Your task to perform on an android device: Open Yahoo.com Image 0: 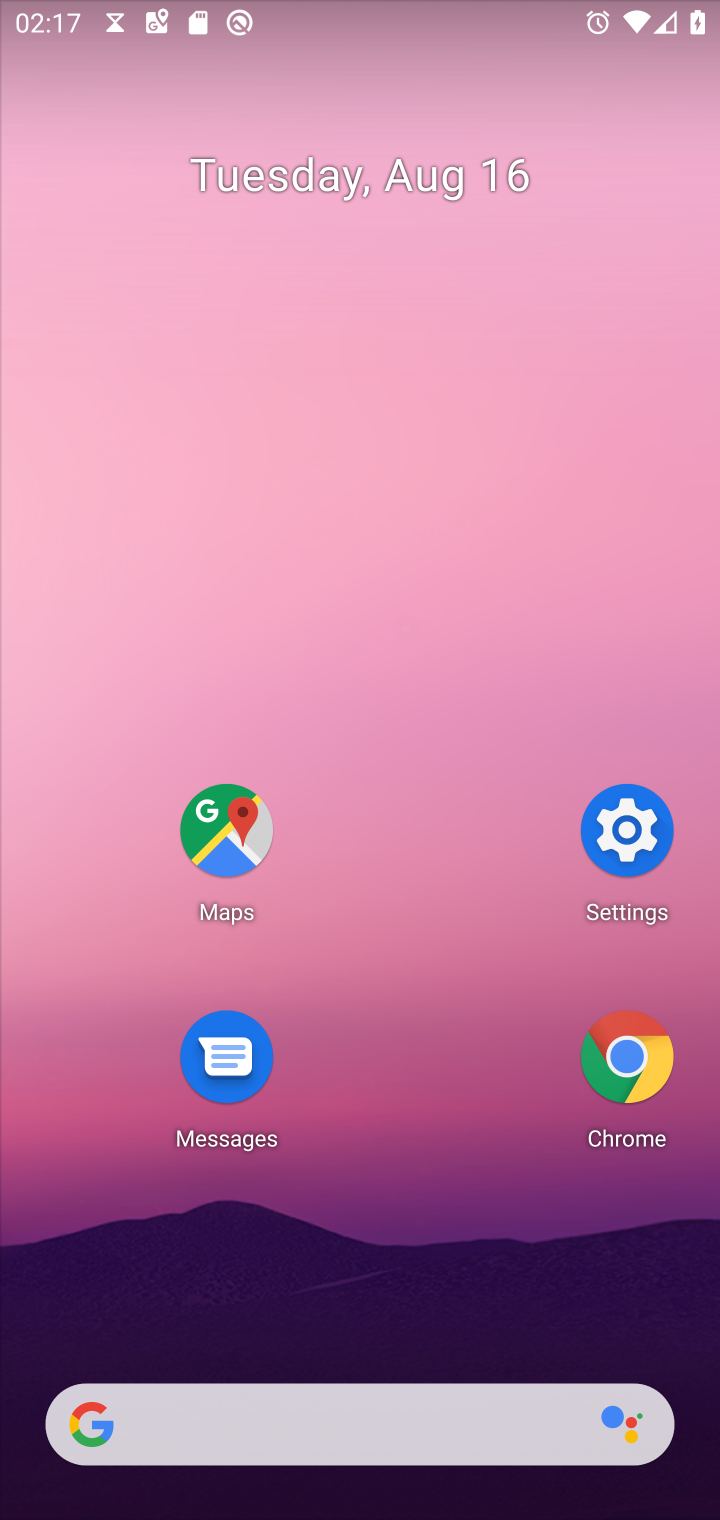
Step 0: press home button
Your task to perform on an android device: Open Yahoo.com Image 1: 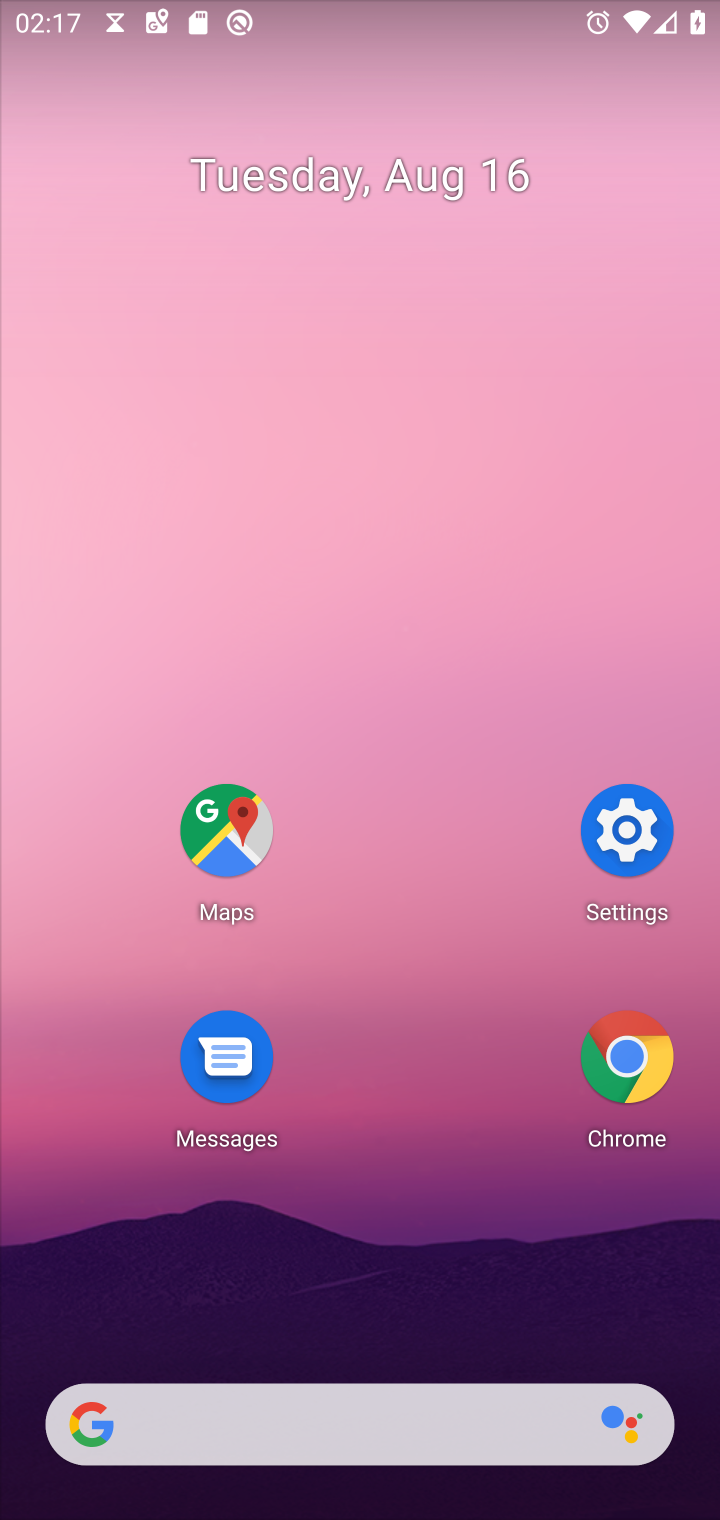
Step 1: click (641, 1054)
Your task to perform on an android device: Open Yahoo.com Image 2: 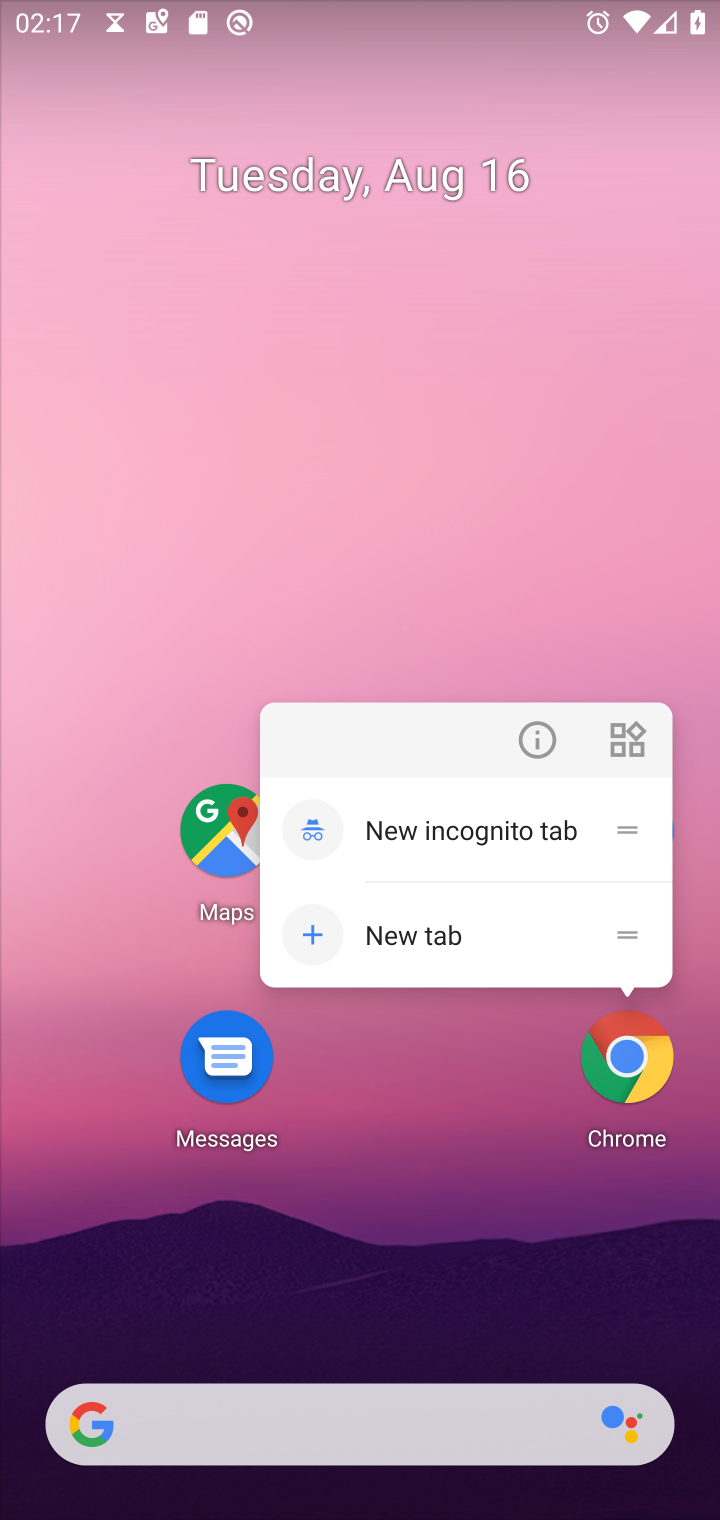
Step 2: click (629, 1063)
Your task to perform on an android device: Open Yahoo.com Image 3: 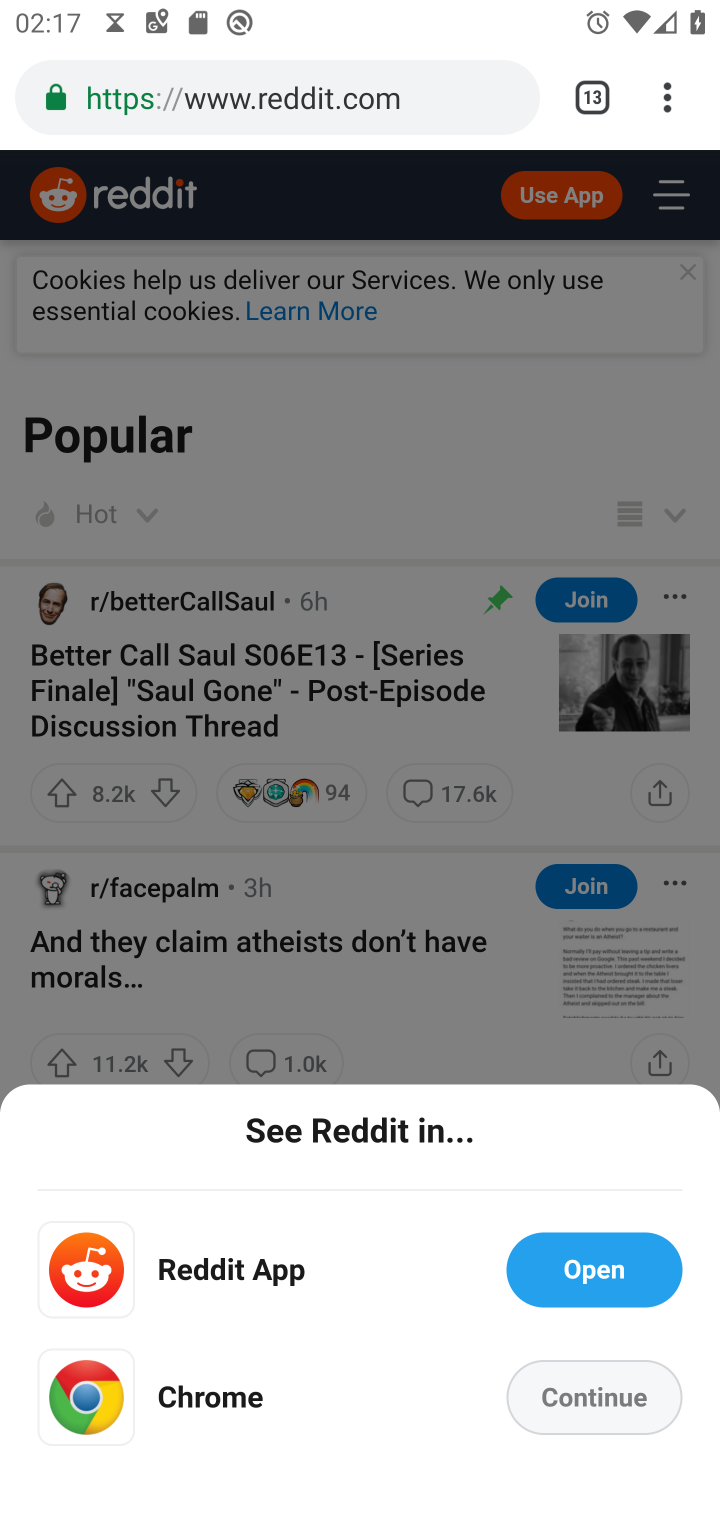
Step 3: drag from (668, 100) to (449, 204)
Your task to perform on an android device: Open Yahoo.com Image 4: 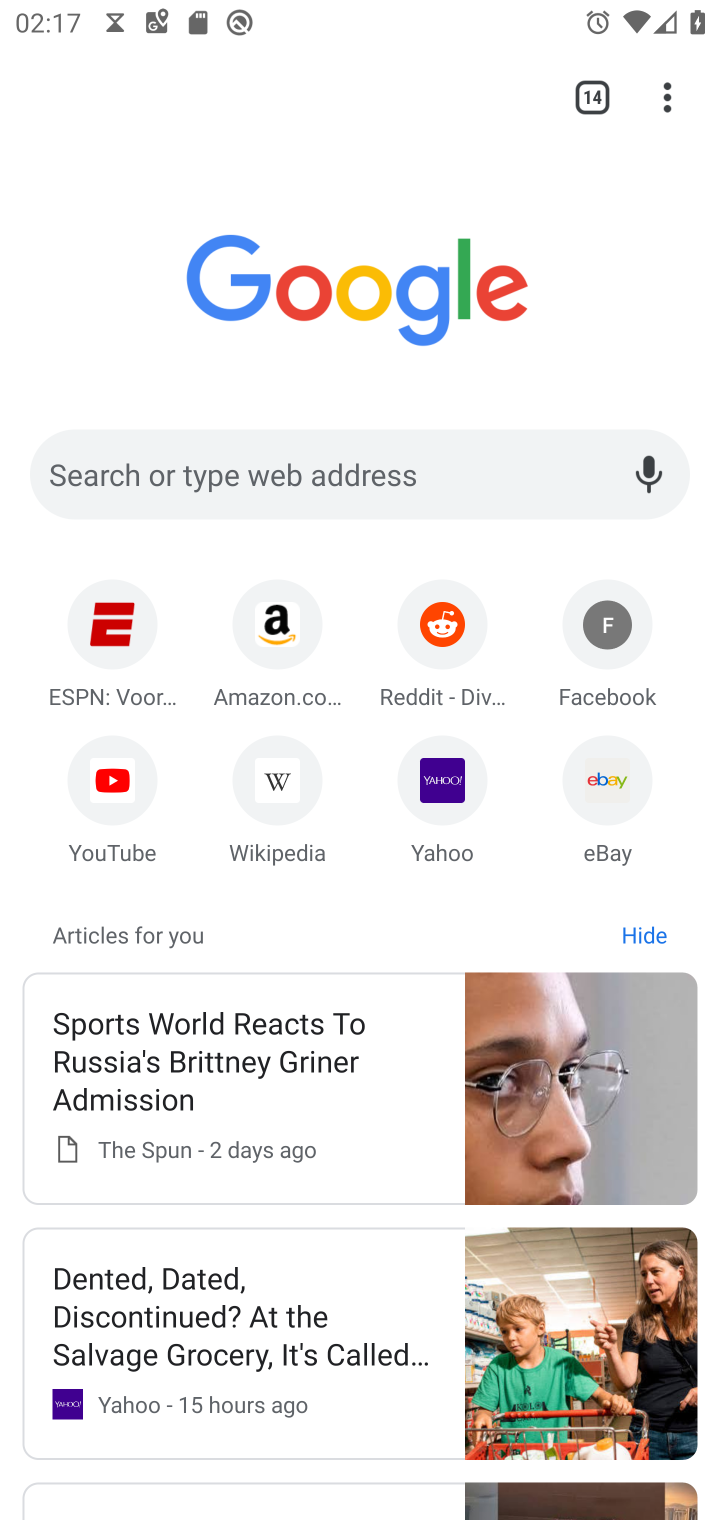
Step 4: click (440, 783)
Your task to perform on an android device: Open Yahoo.com Image 5: 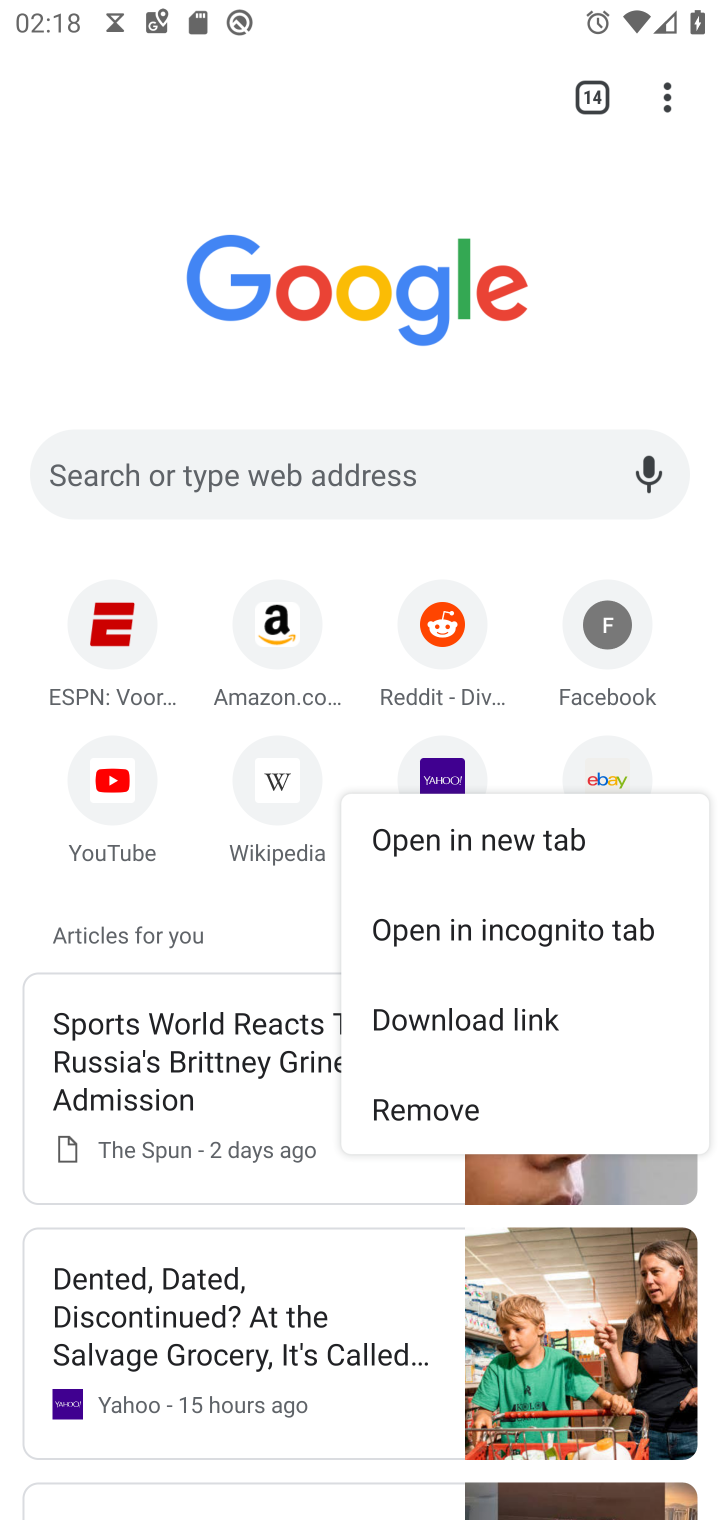
Step 5: click (440, 781)
Your task to perform on an android device: Open Yahoo.com Image 6: 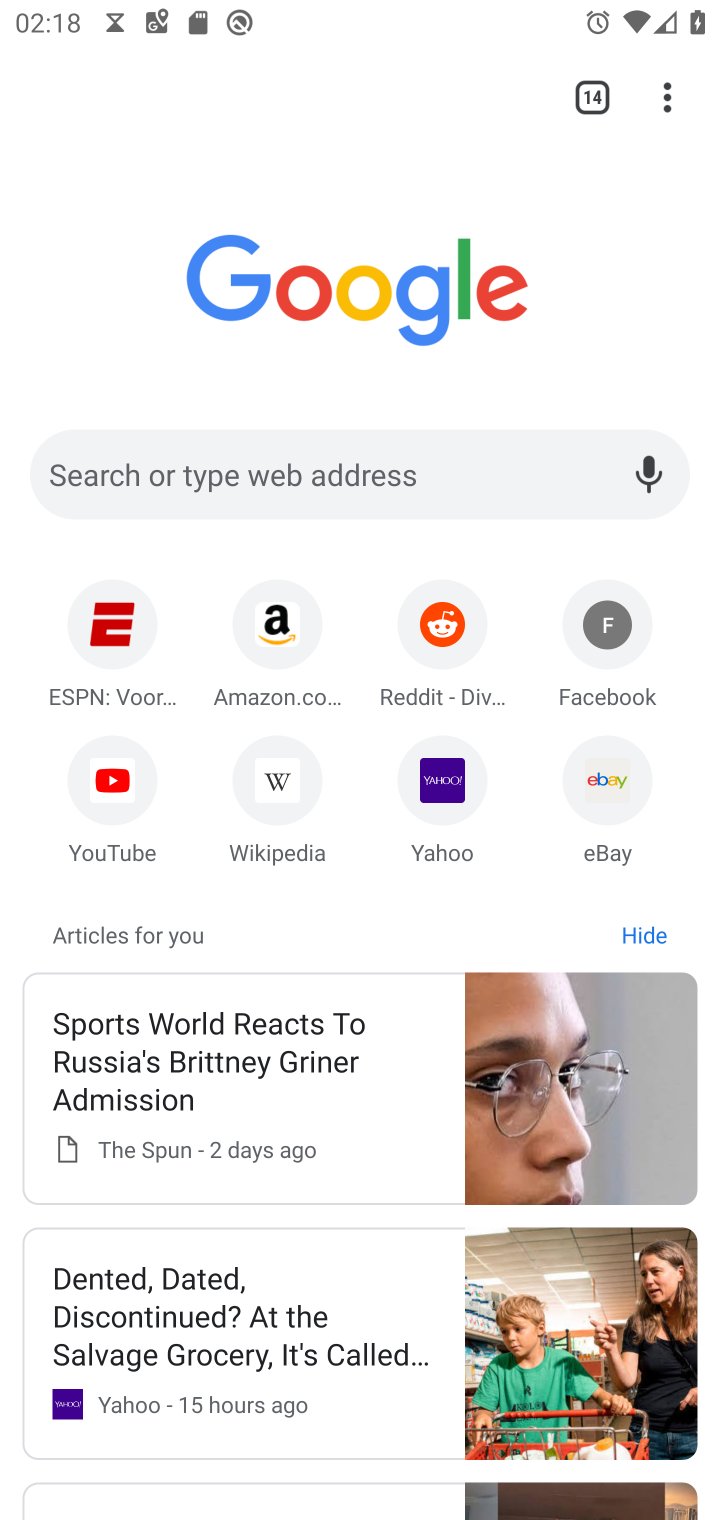
Step 6: click (440, 784)
Your task to perform on an android device: Open Yahoo.com Image 7: 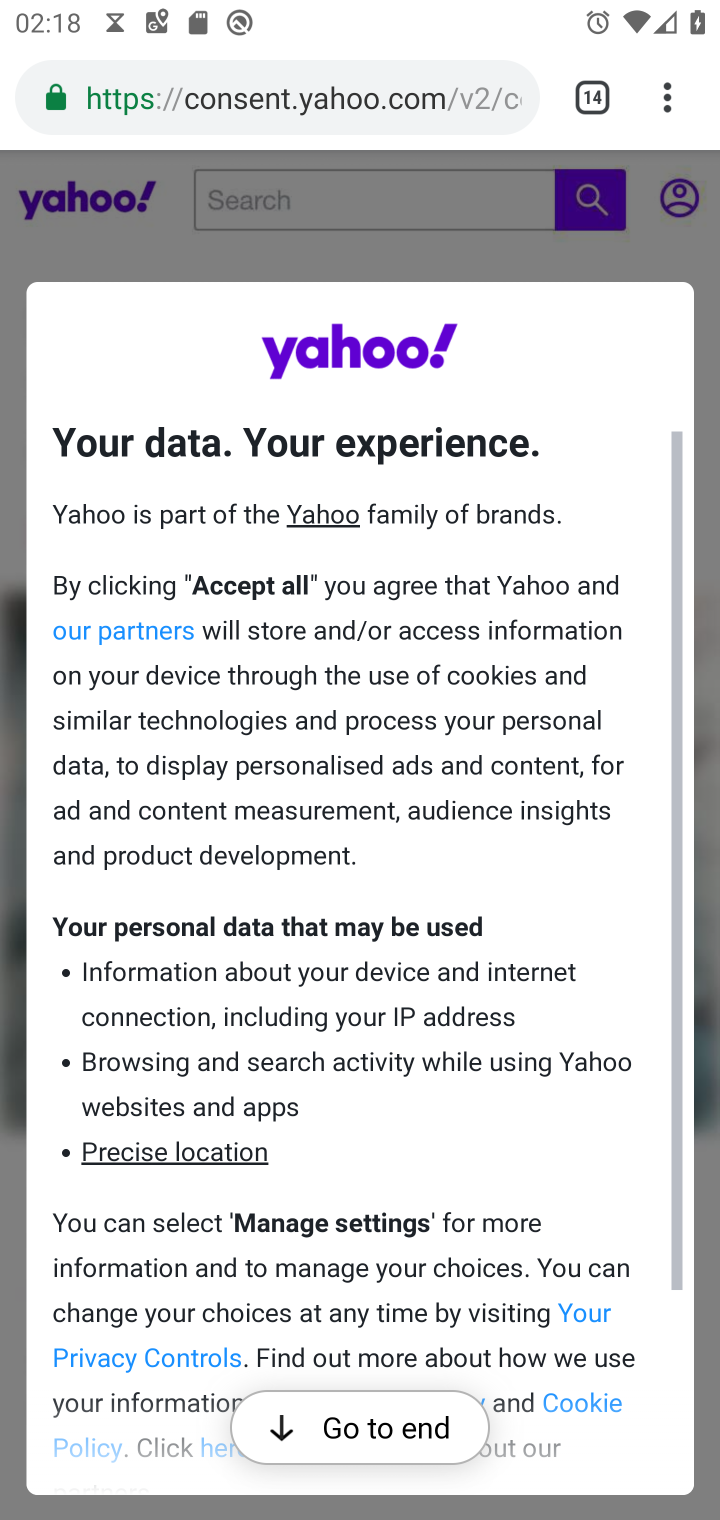
Step 7: click (334, 1425)
Your task to perform on an android device: Open Yahoo.com Image 8: 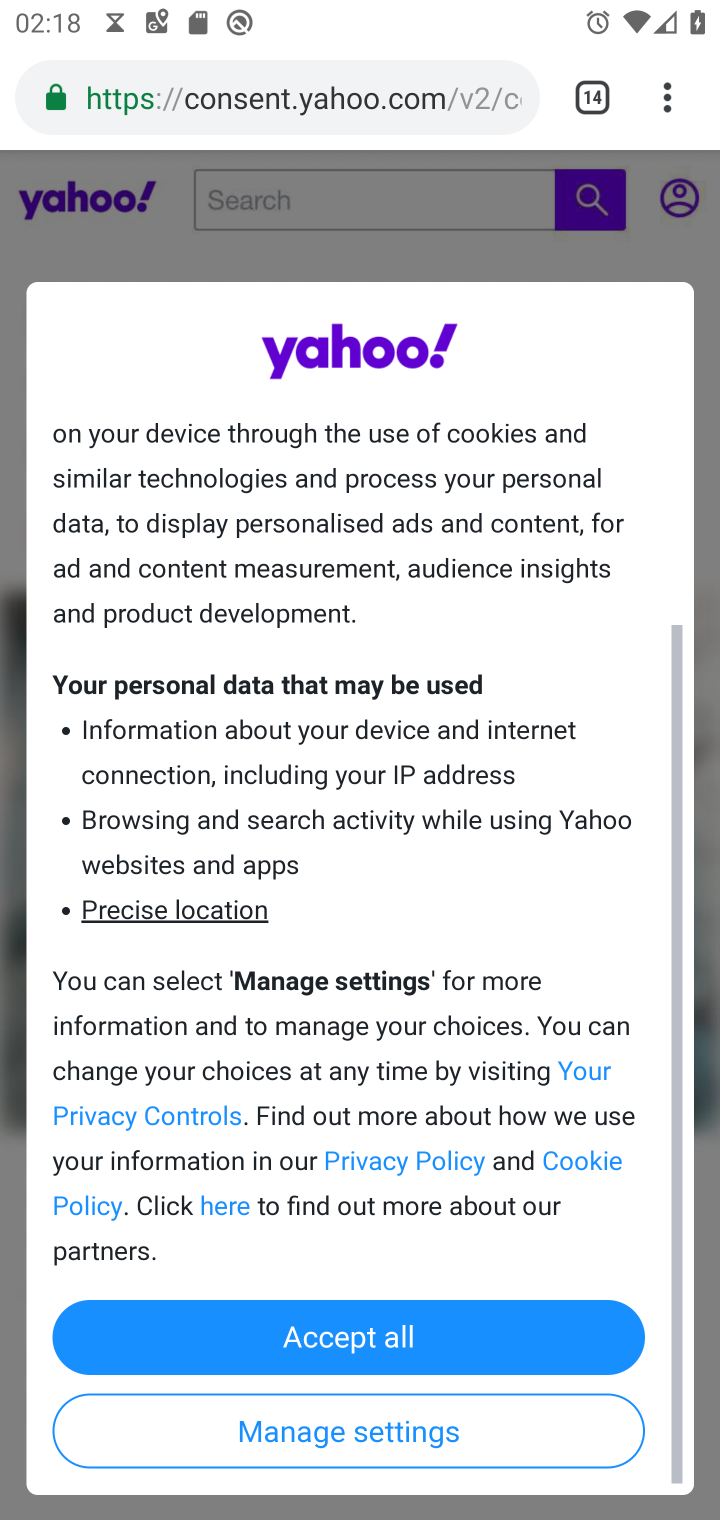
Step 8: click (374, 1327)
Your task to perform on an android device: Open Yahoo.com Image 9: 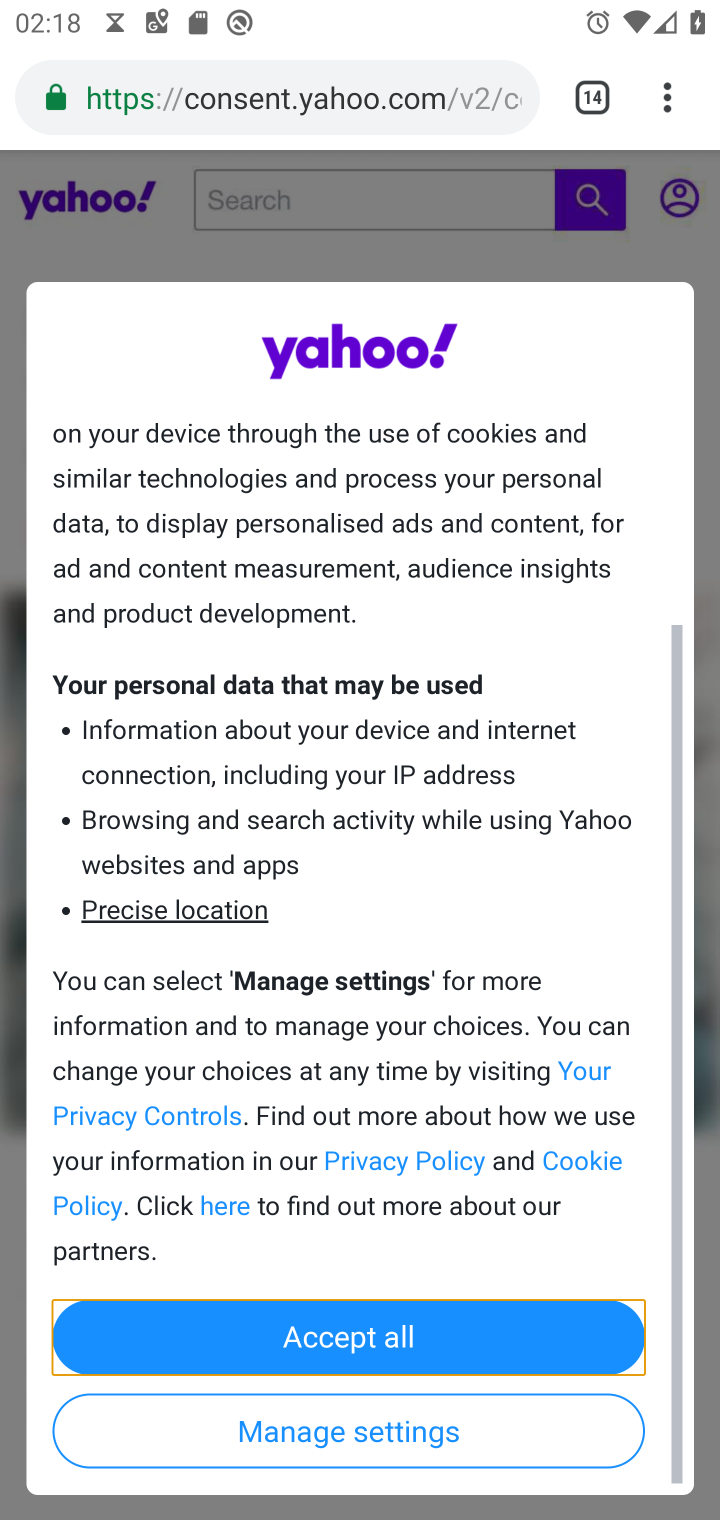
Step 9: click (353, 1340)
Your task to perform on an android device: Open Yahoo.com Image 10: 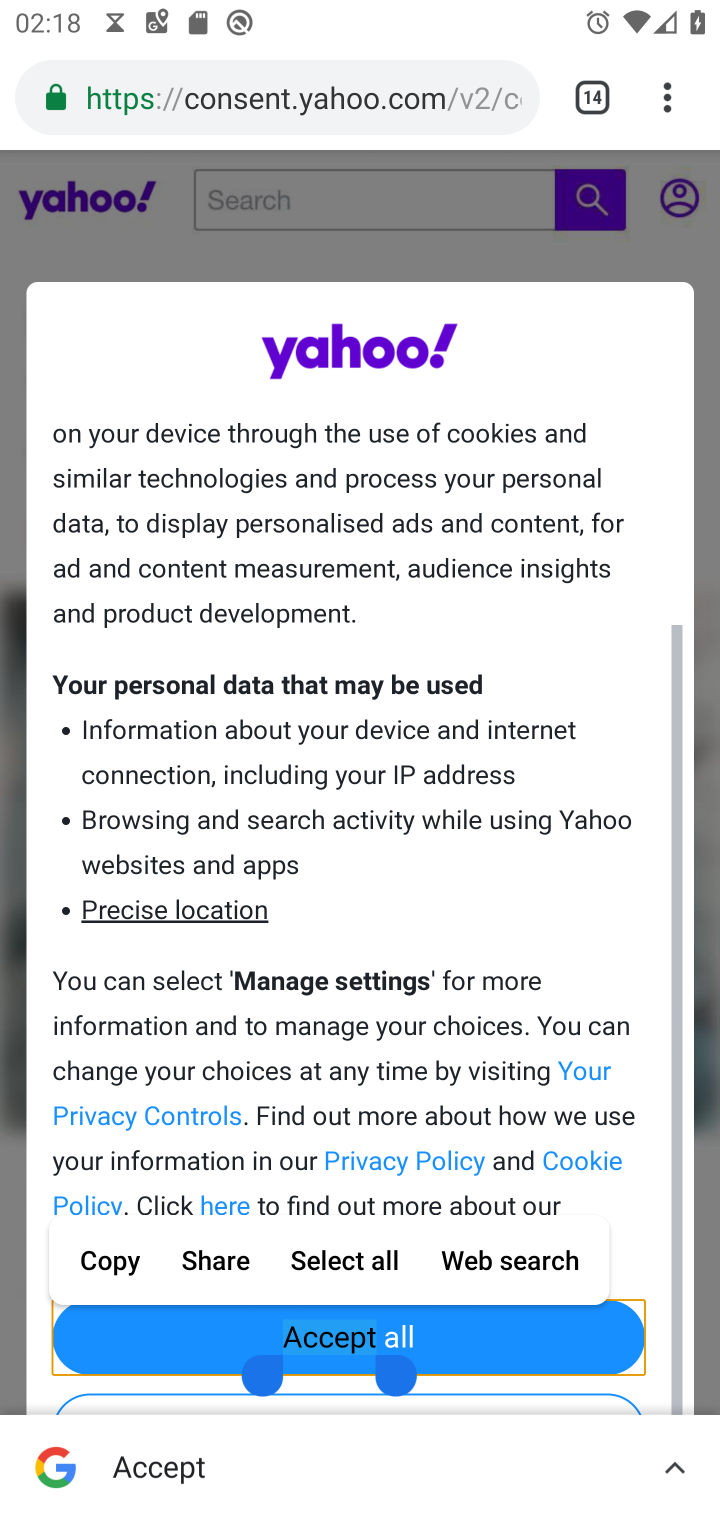
Step 10: click (389, 1337)
Your task to perform on an android device: Open Yahoo.com Image 11: 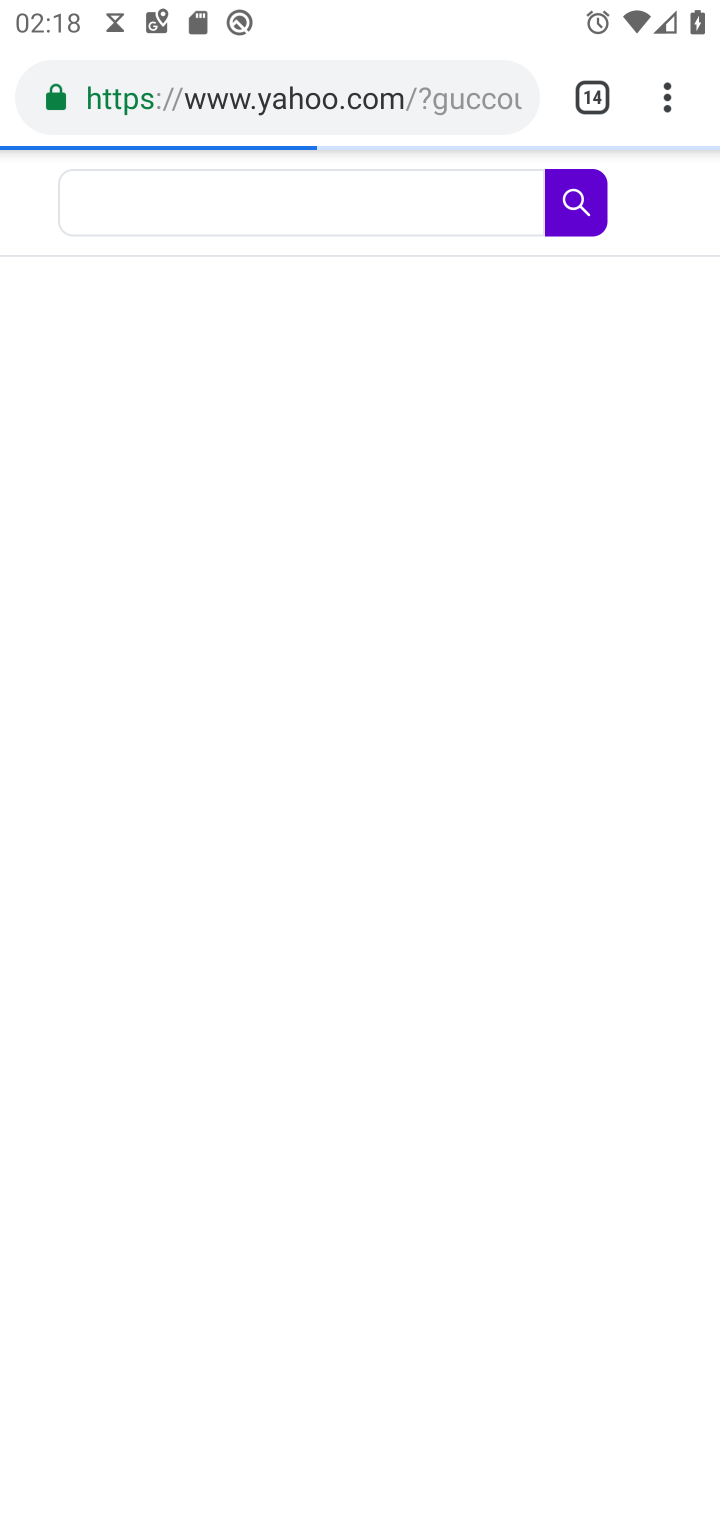
Step 11: click (491, 1337)
Your task to perform on an android device: Open Yahoo.com Image 12: 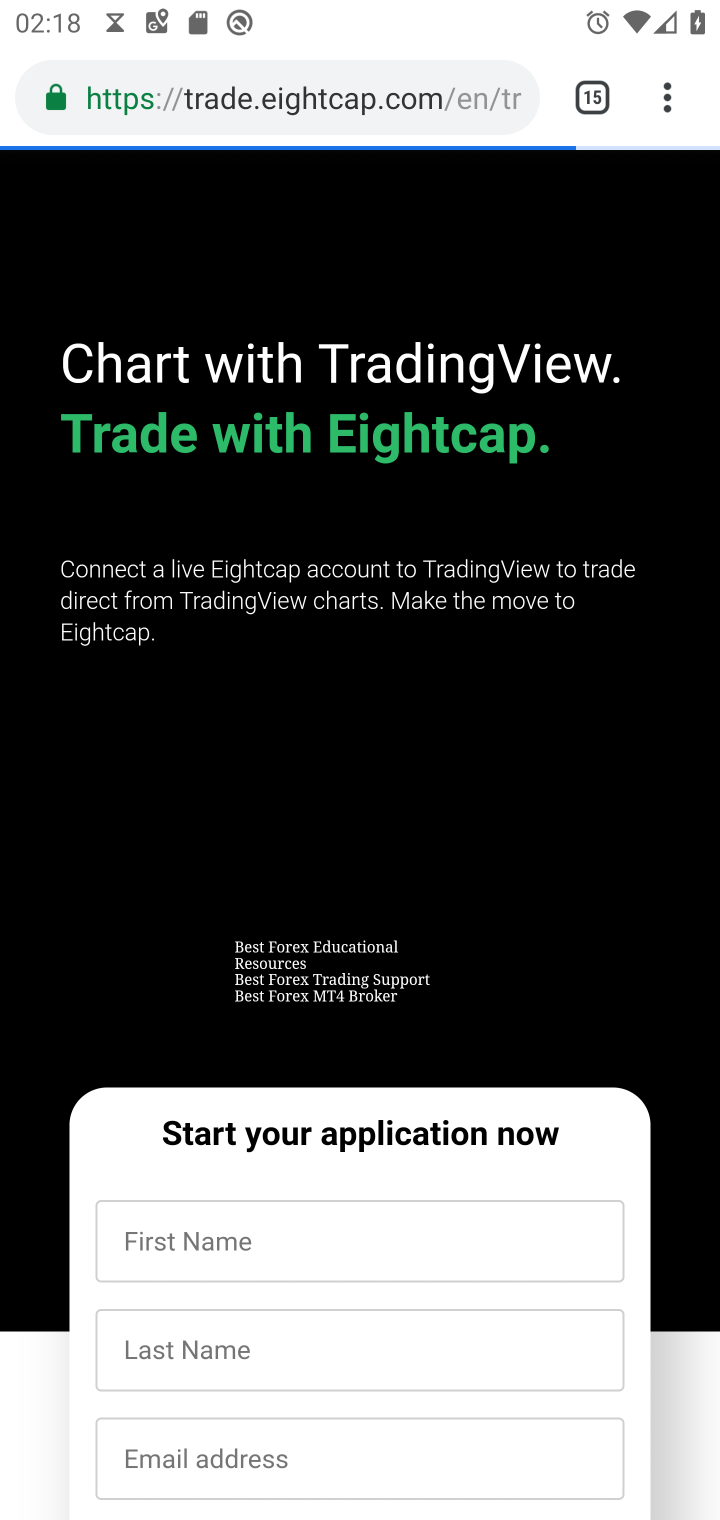
Step 12: task complete